Your task to perform on an android device: Go to Yahoo.com Image 0: 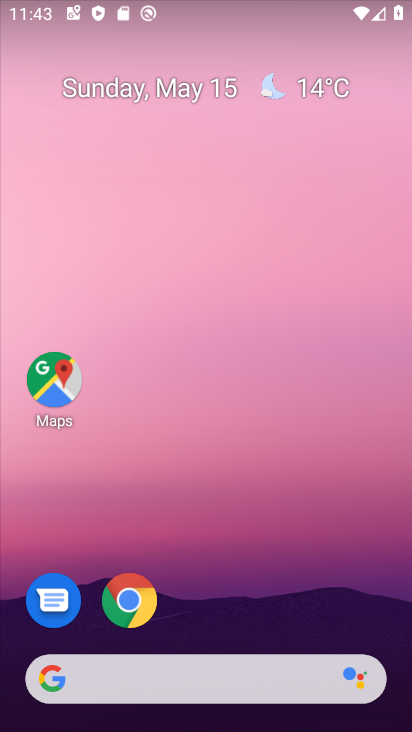
Step 0: click (131, 595)
Your task to perform on an android device: Go to Yahoo.com Image 1: 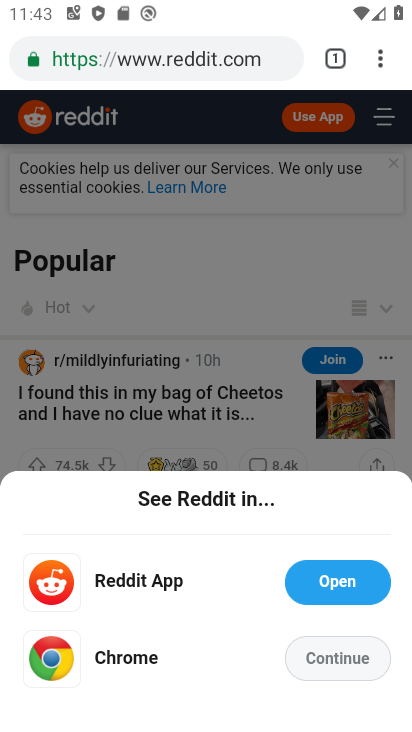
Step 1: click (184, 49)
Your task to perform on an android device: Go to Yahoo.com Image 2: 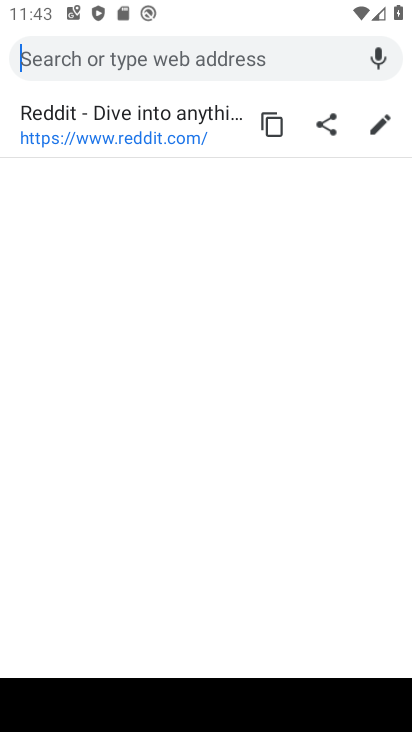
Step 2: type "yahoo.com"
Your task to perform on an android device: Go to Yahoo.com Image 3: 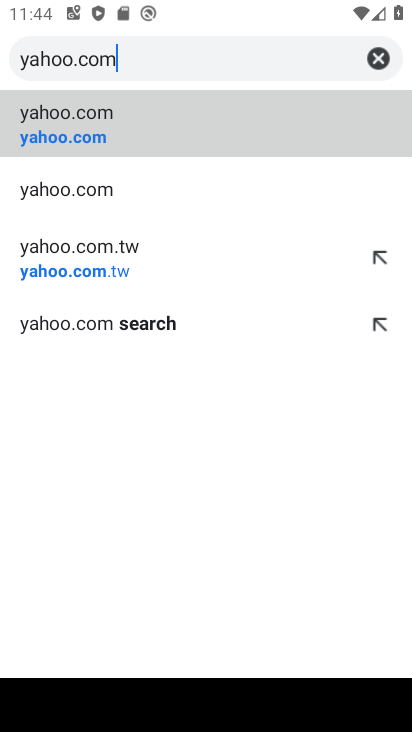
Step 3: click (60, 115)
Your task to perform on an android device: Go to Yahoo.com Image 4: 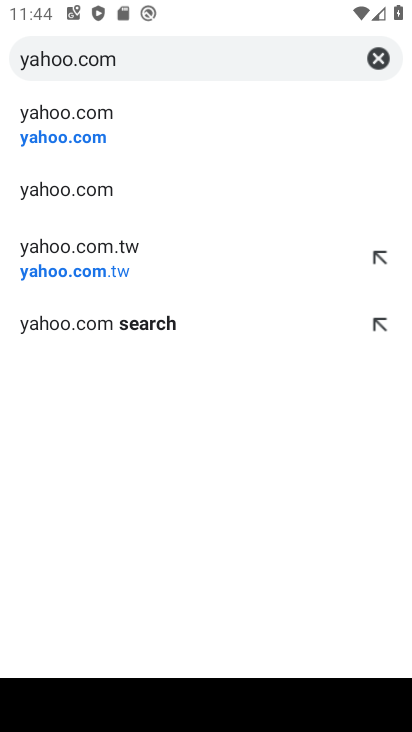
Step 4: click (77, 113)
Your task to perform on an android device: Go to Yahoo.com Image 5: 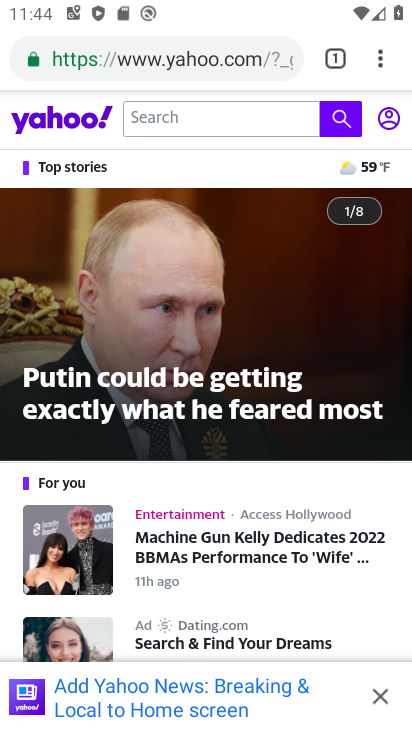
Step 5: task complete